Your task to perform on an android device: turn notification dots off Image 0: 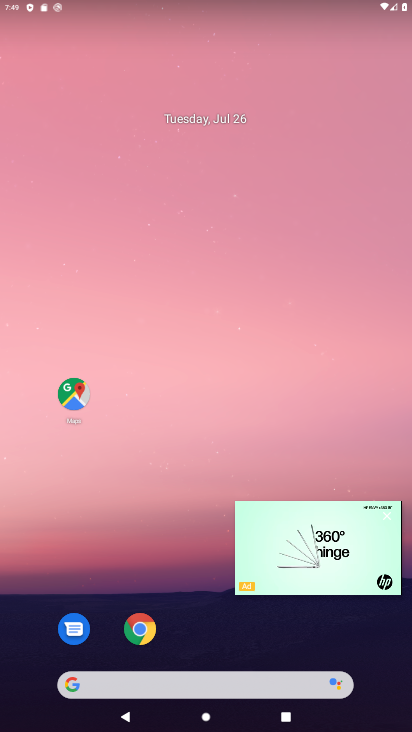
Step 0: press home button
Your task to perform on an android device: turn notification dots off Image 1: 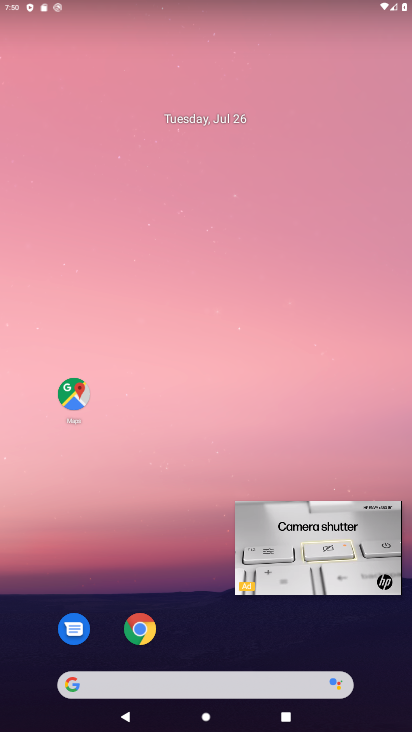
Step 1: drag from (196, 636) to (226, 21)
Your task to perform on an android device: turn notification dots off Image 2: 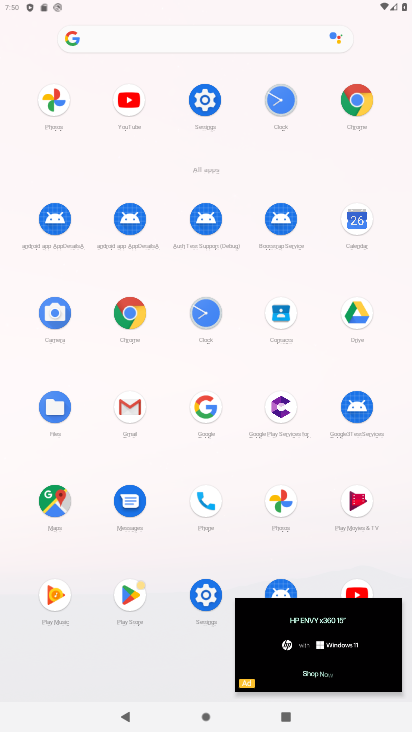
Step 2: click (326, 638)
Your task to perform on an android device: turn notification dots off Image 3: 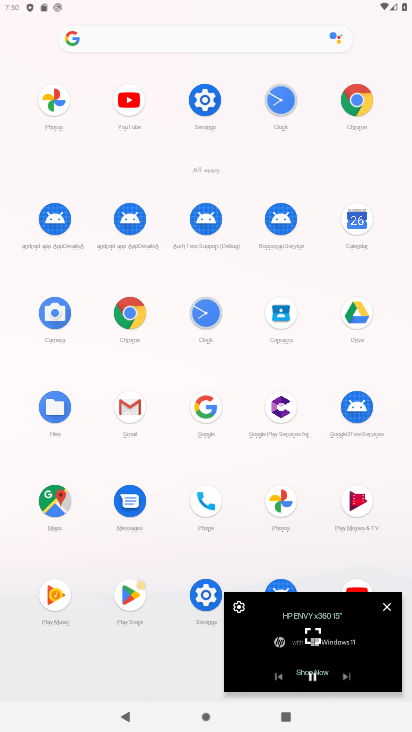
Step 3: click (388, 605)
Your task to perform on an android device: turn notification dots off Image 4: 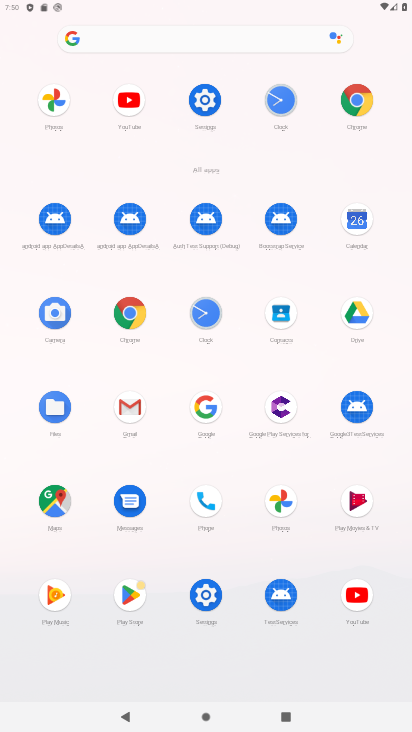
Step 4: click (205, 594)
Your task to perform on an android device: turn notification dots off Image 5: 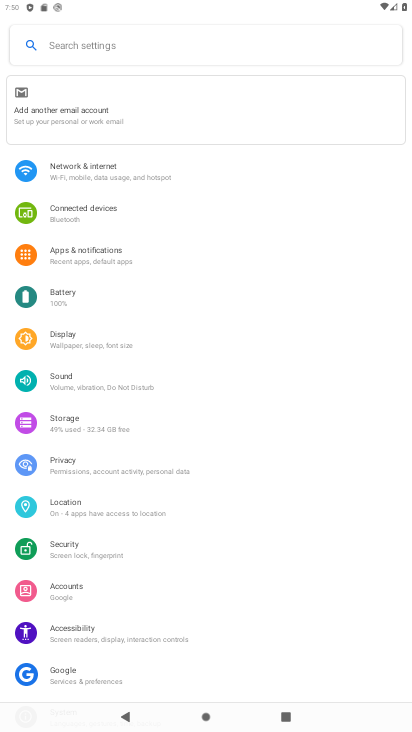
Step 5: click (101, 248)
Your task to perform on an android device: turn notification dots off Image 6: 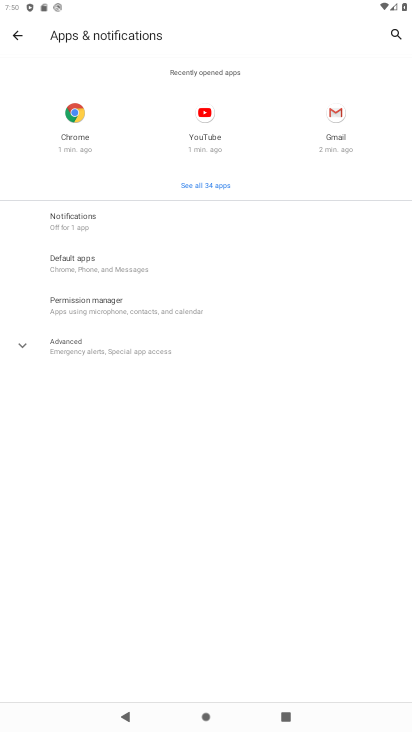
Step 6: click (104, 208)
Your task to perform on an android device: turn notification dots off Image 7: 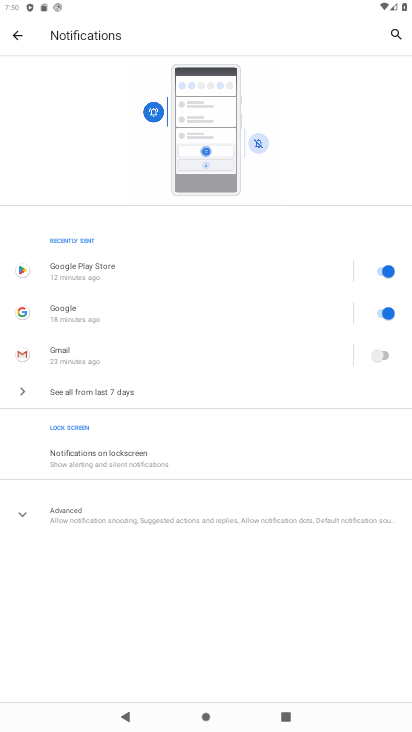
Step 7: click (13, 513)
Your task to perform on an android device: turn notification dots off Image 8: 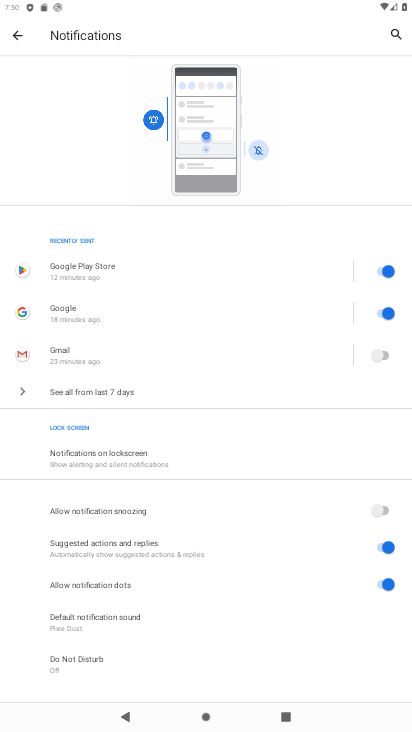
Step 8: click (388, 580)
Your task to perform on an android device: turn notification dots off Image 9: 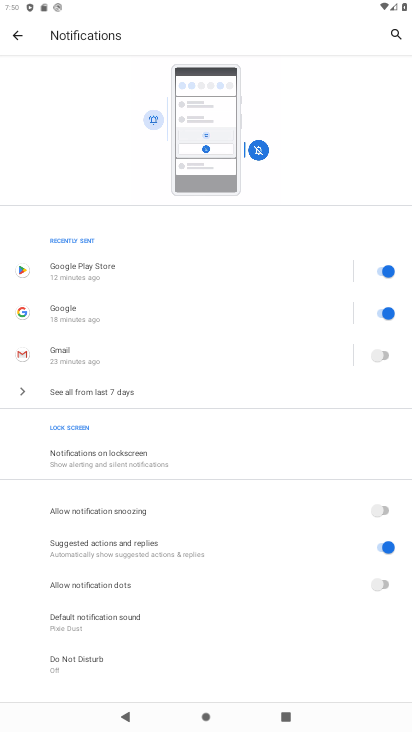
Step 9: task complete